Your task to perform on an android device: turn off priority inbox in the gmail app Image 0: 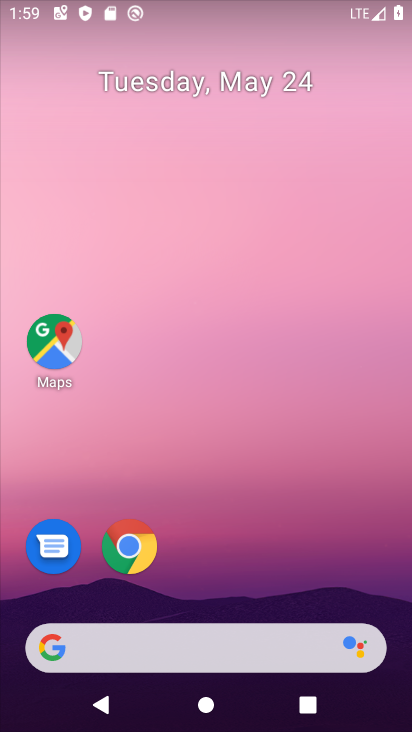
Step 0: drag from (213, 572) to (318, 184)
Your task to perform on an android device: turn off priority inbox in the gmail app Image 1: 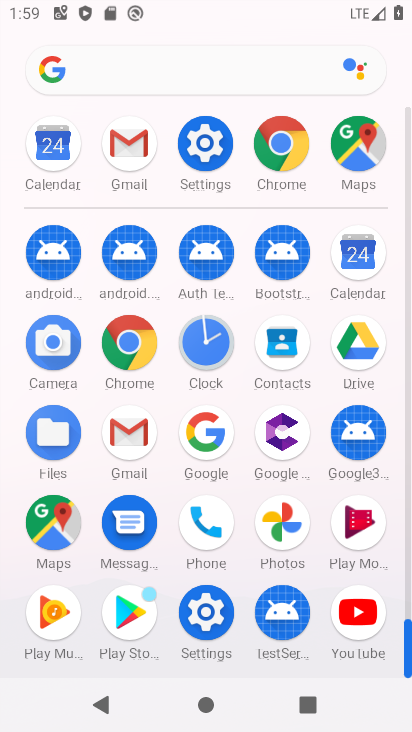
Step 1: click (127, 437)
Your task to perform on an android device: turn off priority inbox in the gmail app Image 2: 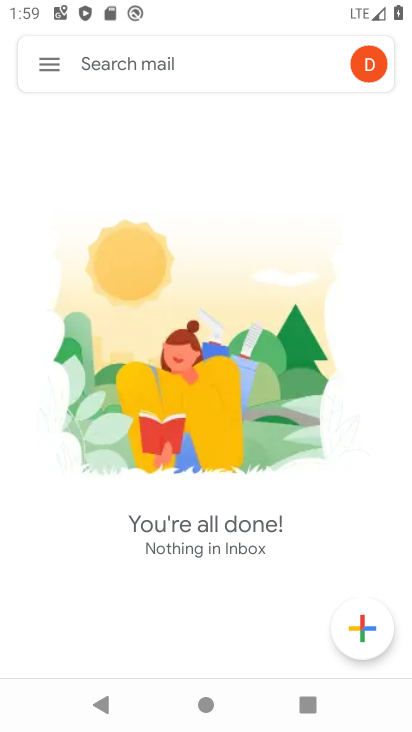
Step 2: click (41, 64)
Your task to perform on an android device: turn off priority inbox in the gmail app Image 3: 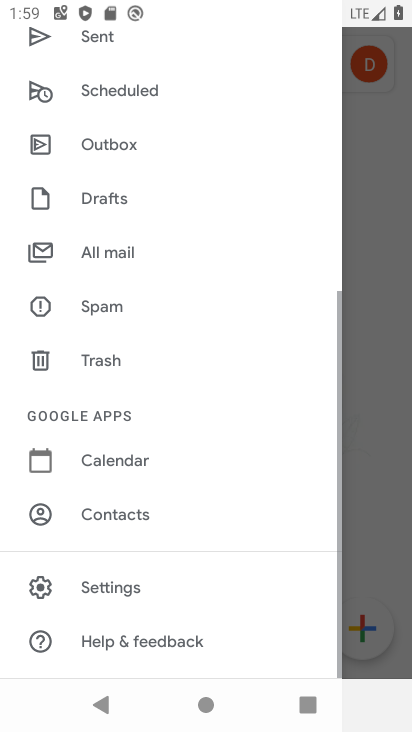
Step 3: drag from (243, 591) to (273, 163)
Your task to perform on an android device: turn off priority inbox in the gmail app Image 4: 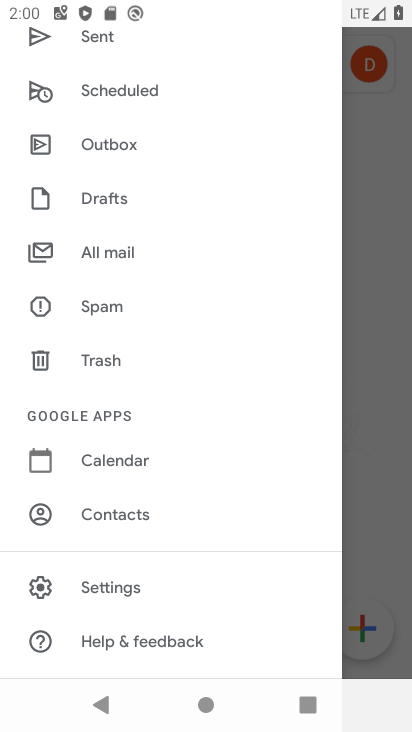
Step 4: click (94, 589)
Your task to perform on an android device: turn off priority inbox in the gmail app Image 5: 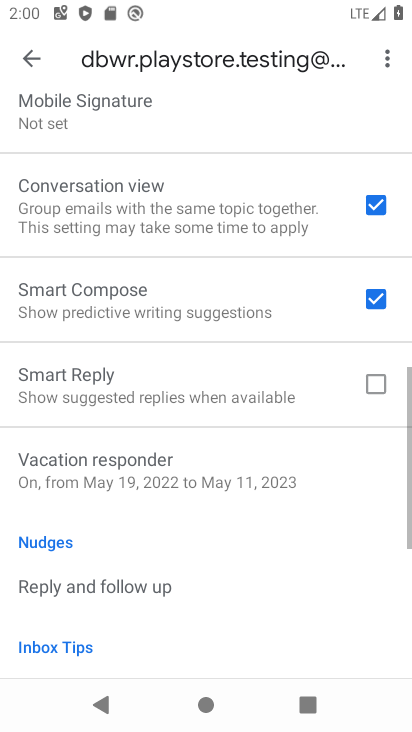
Step 5: drag from (141, 218) to (233, 730)
Your task to perform on an android device: turn off priority inbox in the gmail app Image 6: 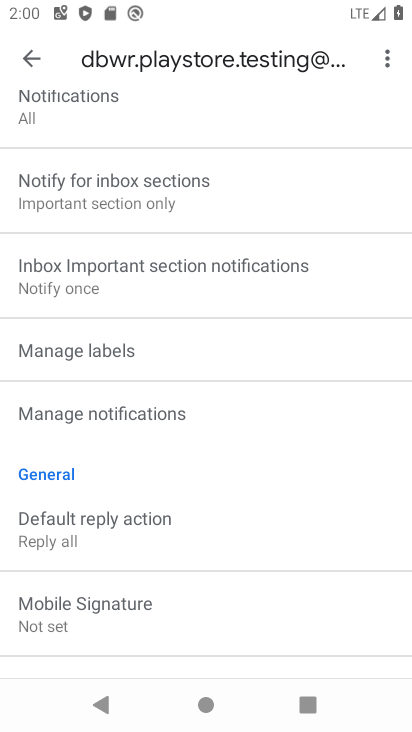
Step 6: drag from (149, 176) to (189, 641)
Your task to perform on an android device: turn off priority inbox in the gmail app Image 7: 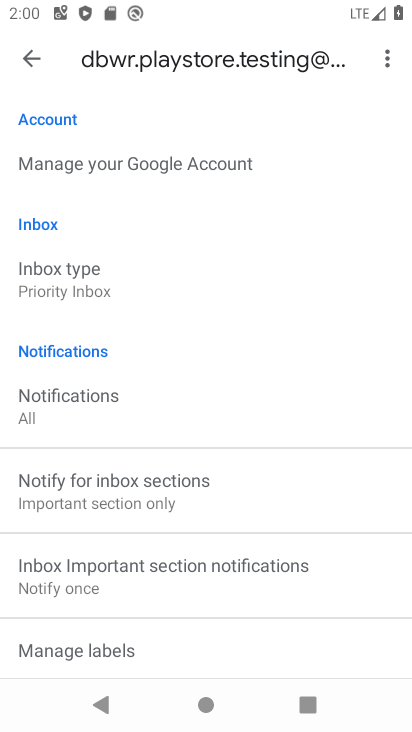
Step 7: click (122, 284)
Your task to perform on an android device: turn off priority inbox in the gmail app Image 8: 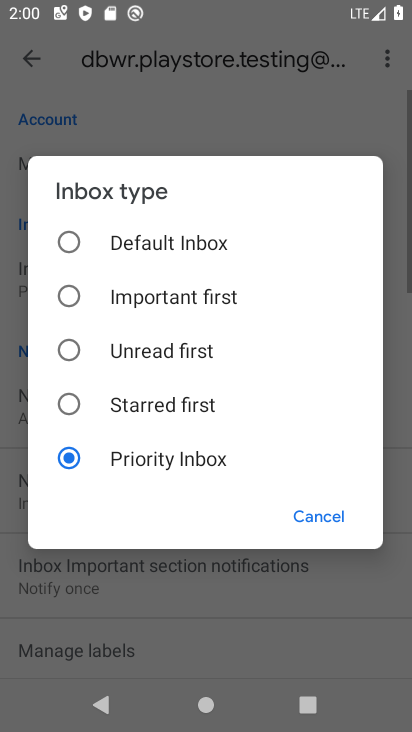
Step 8: click (129, 246)
Your task to perform on an android device: turn off priority inbox in the gmail app Image 9: 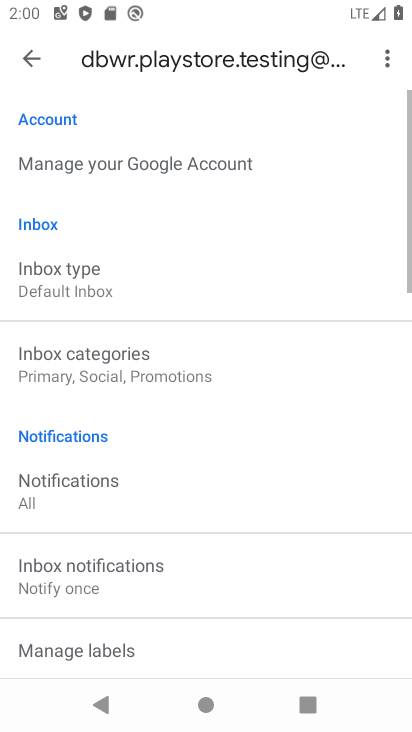
Step 9: task complete